Your task to perform on an android device: Open the map Image 0: 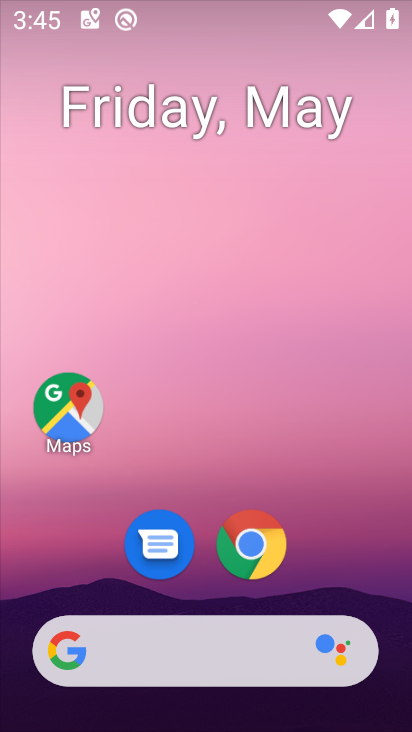
Step 0: drag from (238, 714) to (158, 98)
Your task to perform on an android device: Open the map Image 1: 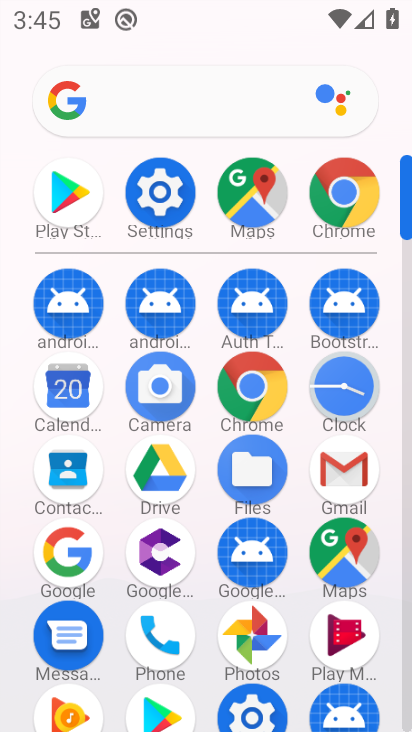
Step 1: click (248, 203)
Your task to perform on an android device: Open the map Image 2: 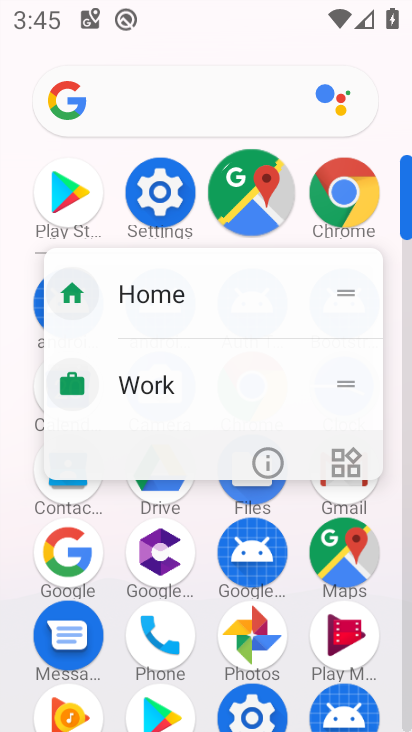
Step 2: click (248, 202)
Your task to perform on an android device: Open the map Image 3: 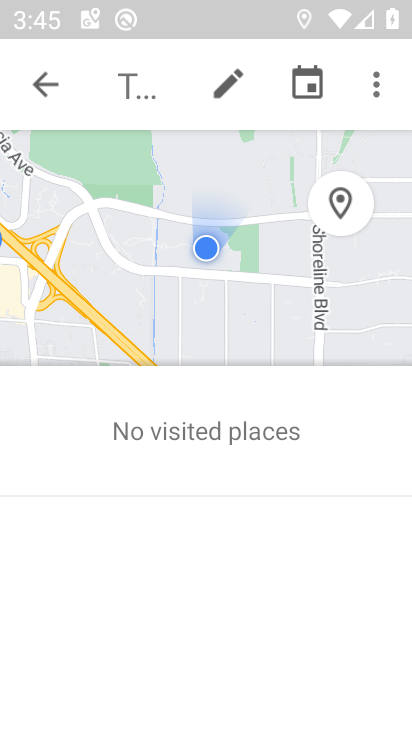
Step 3: task complete